Your task to perform on an android device: Open location settings Image 0: 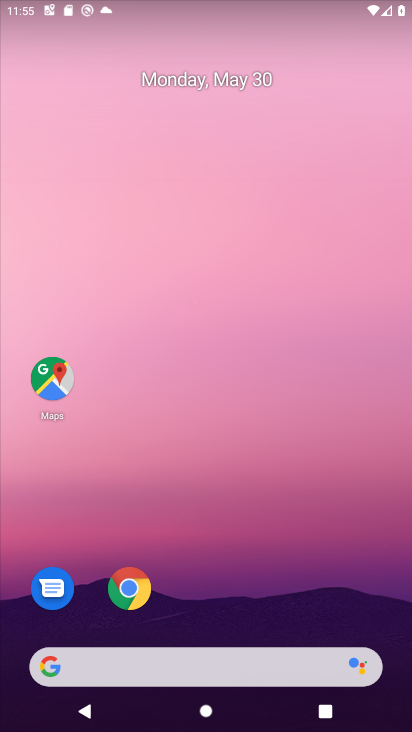
Step 0: drag from (341, 658) to (261, 70)
Your task to perform on an android device: Open location settings Image 1: 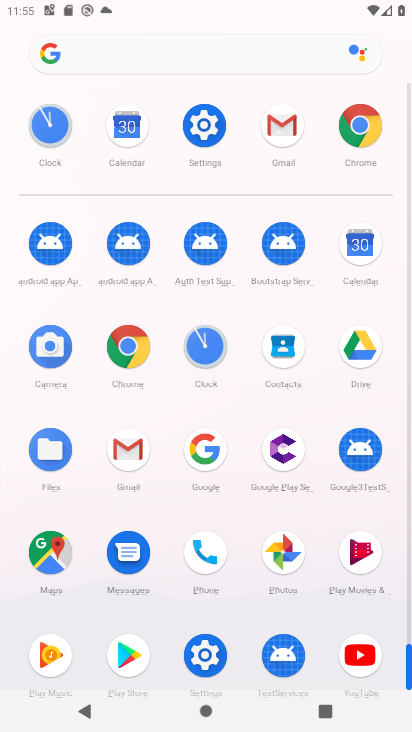
Step 1: click (212, 137)
Your task to perform on an android device: Open location settings Image 2: 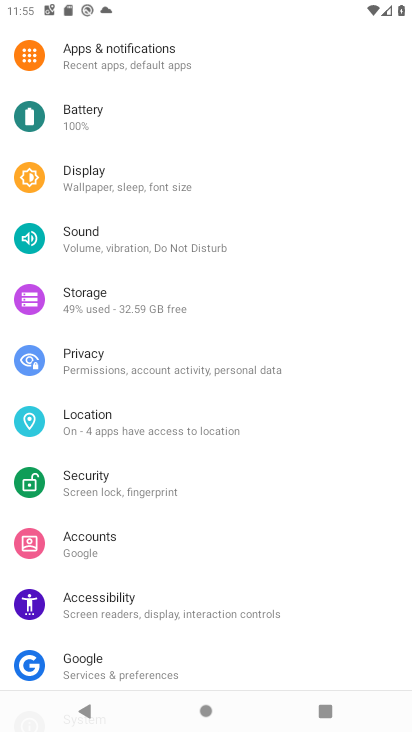
Step 2: click (131, 419)
Your task to perform on an android device: Open location settings Image 3: 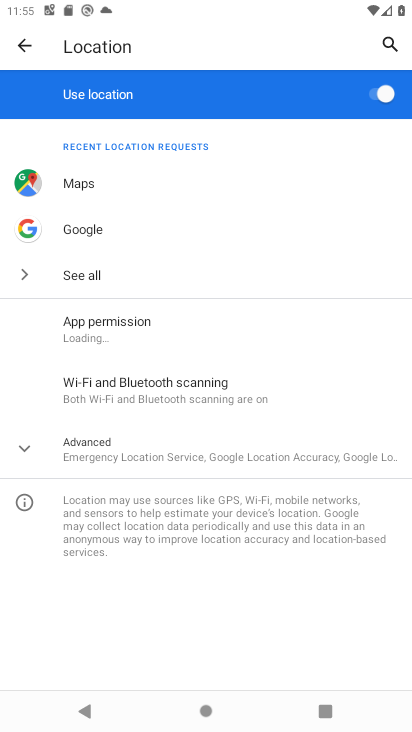
Step 3: task complete